Your task to perform on an android device: toggle javascript in the chrome app Image 0: 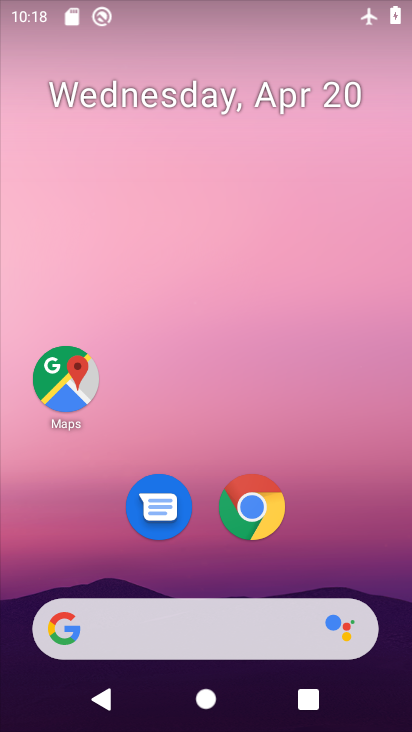
Step 0: click (258, 507)
Your task to perform on an android device: toggle javascript in the chrome app Image 1: 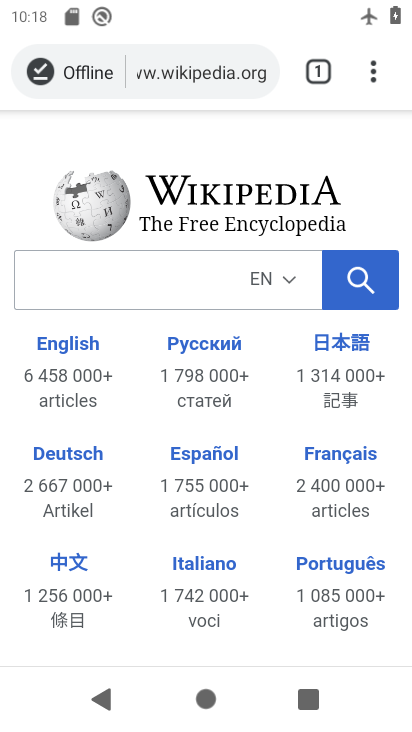
Step 1: click (373, 70)
Your task to perform on an android device: toggle javascript in the chrome app Image 2: 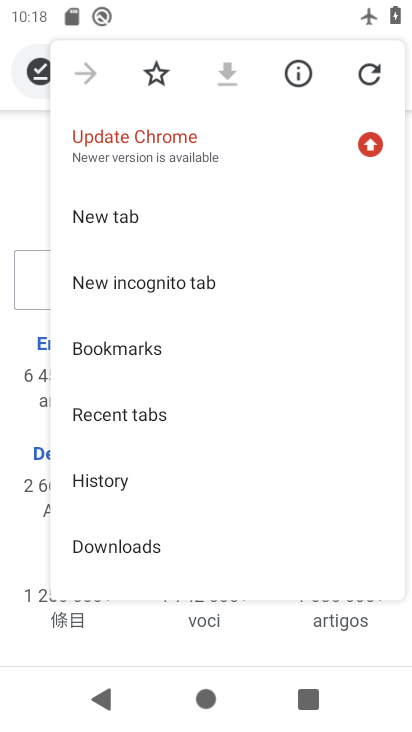
Step 2: drag from (128, 470) to (162, 163)
Your task to perform on an android device: toggle javascript in the chrome app Image 3: 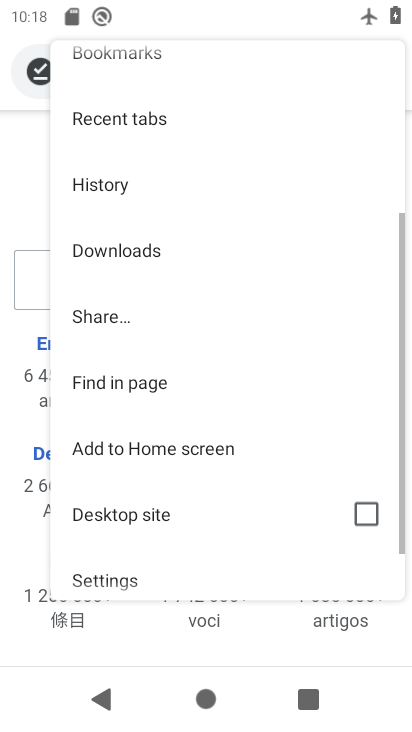
Step 3: click (127, 572)
Your task to perform on an android device: toggle javascript in the chrome app Image 4: 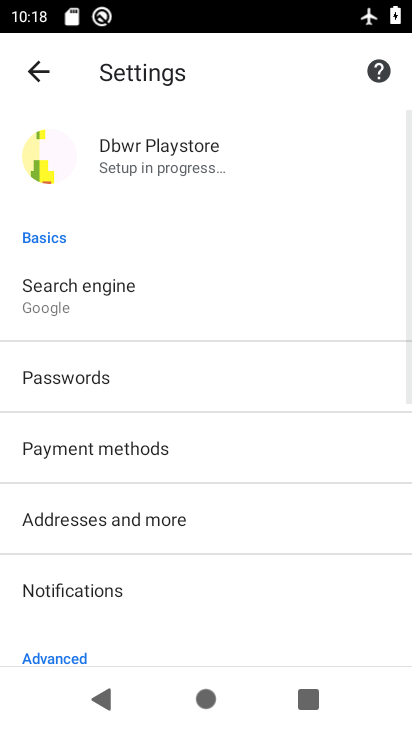
Step 4: drag from (141, 604) to (187, 245)
Your task to perform on an android device: toggle javascript in the chrome app Image 5: 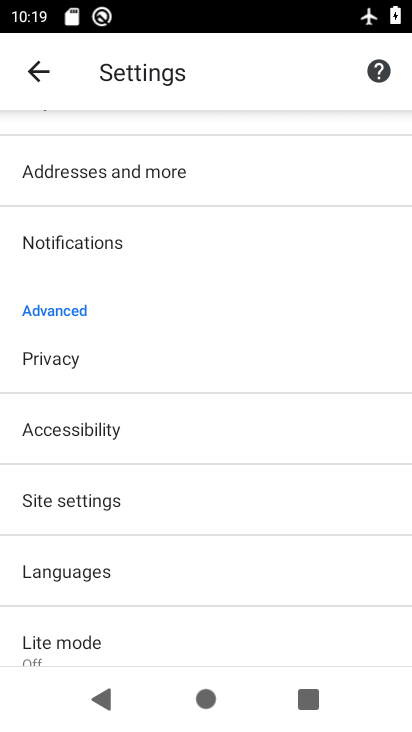
Step 5: click (95, 507)
Your task to perform on an android device: toggle javascript in the chrome app Image 6: 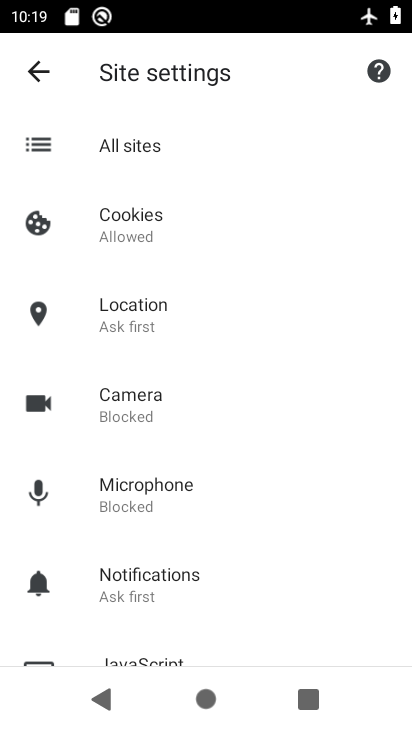
Step 6: drag from (136, 584) to (150, 335)
Your task to perform on an android device: toggle javascript in the chrome app Image 7: 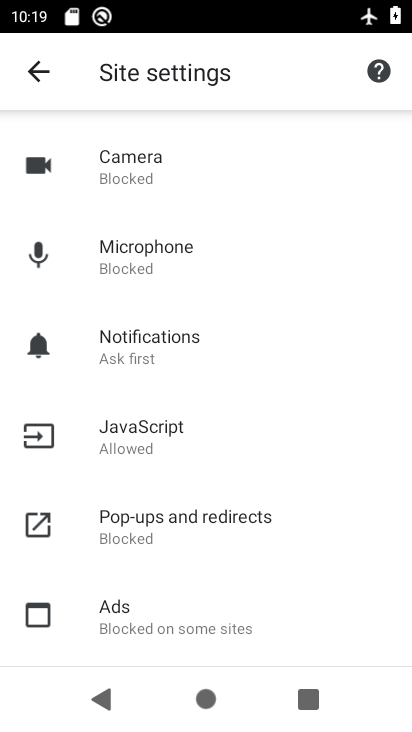
Step 7: click (132, 429)
Your task to perform on an android device: toggle javascript in the chrome app Image 8: 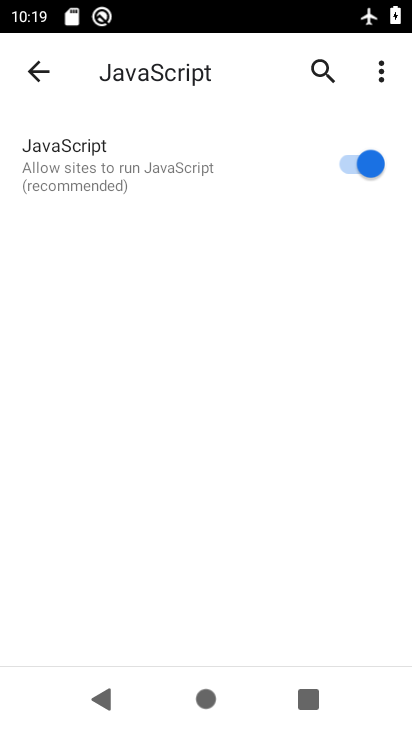
Step 8: click (347, 163)
Your task to perform on an android device: toggle javascript in the chrome app Image 9: 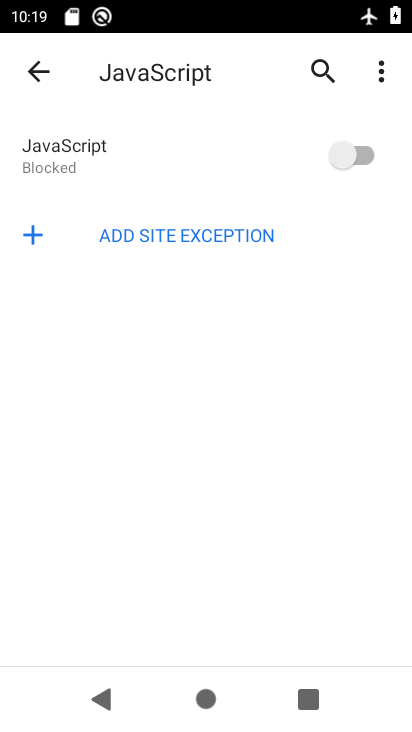
Step 9: task complete